Your task to perform on an android device: Open Yahoo.com Image 0: 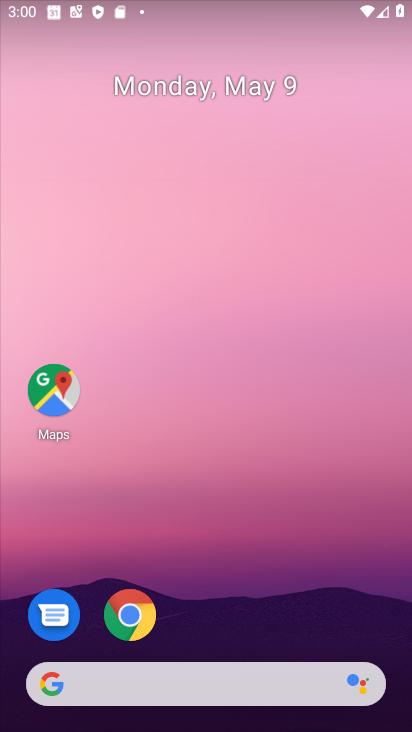
Step 0: drag from (218, 554) to (158, 151)
Your task to perform on an android device: Open Yahoo.com Image 1: 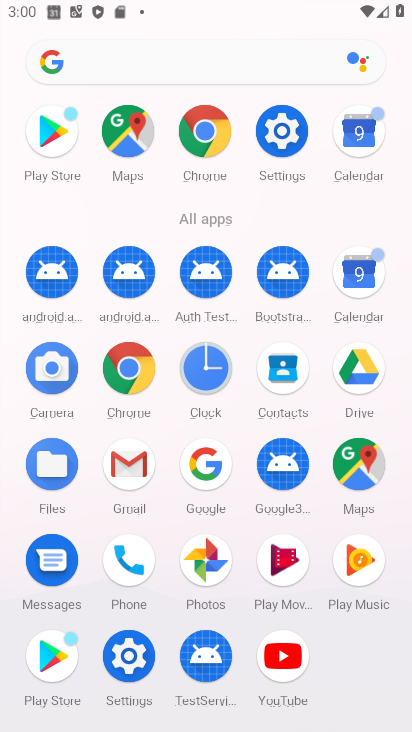
Step 1: click (122, 366)
Your task to perform on an android device: Open Yahoo.com Image 2: 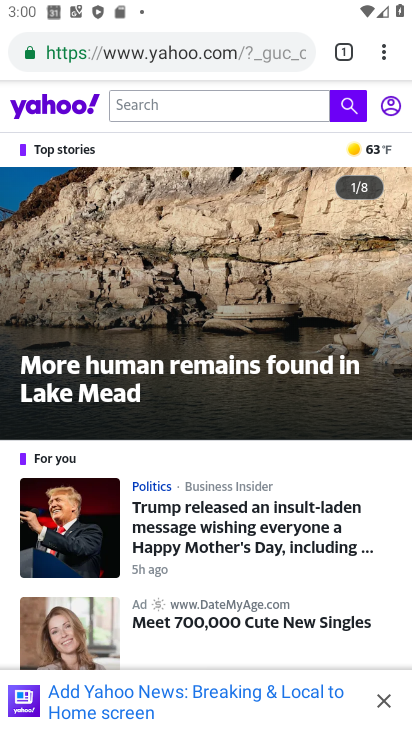
Step 2: task complete